Your task to perform on an android device: Open Yahoo.com Image 0: 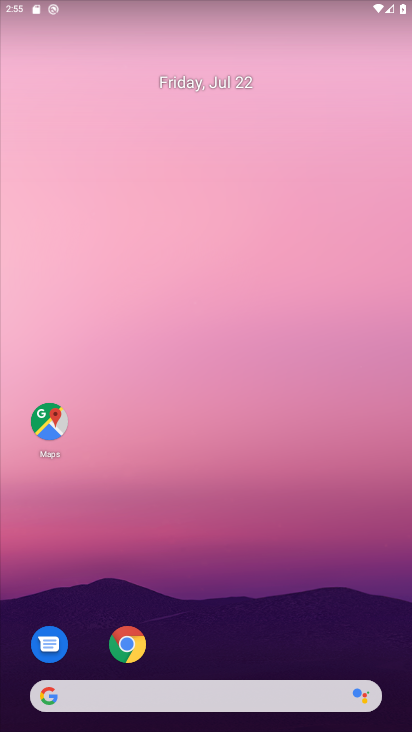
Step 0: click (126, 651)
Your task to perform on an android device: Open Yahoo.com Image 1: 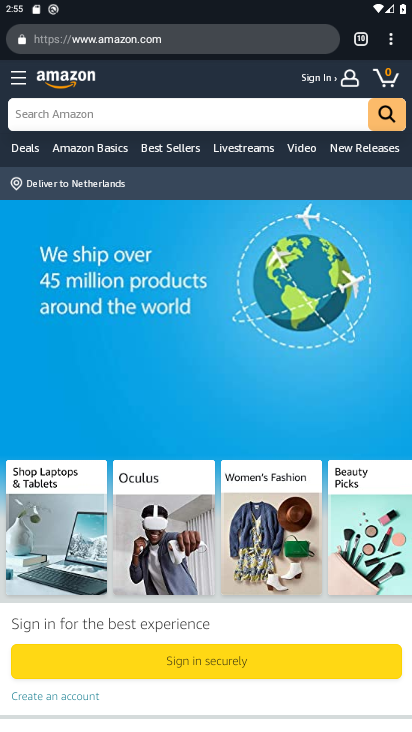
Step 1: click (397, 36)
Your task to perform on an android device: Open Yahoo.com Image 2: 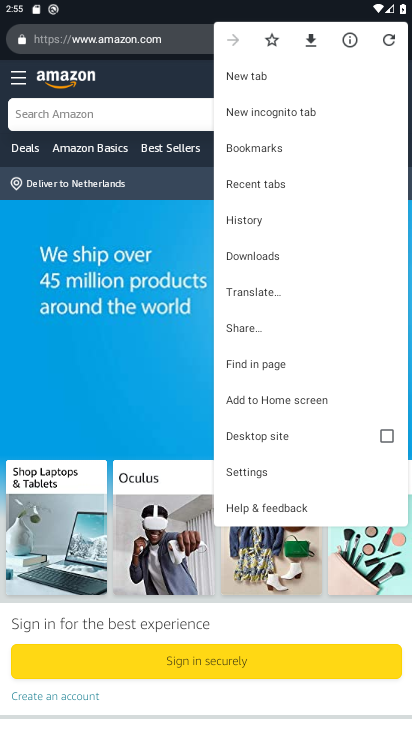
Step 2: click (243, 74)
Your task to perform on an android device: Open Yahoo.com Image 3: 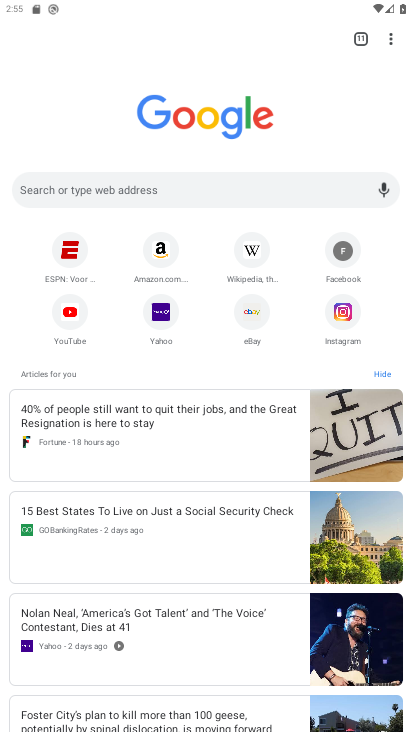
Step 3: click (166, 312)
Your task to perform on an android device: Open Yahoo.com Image 4: 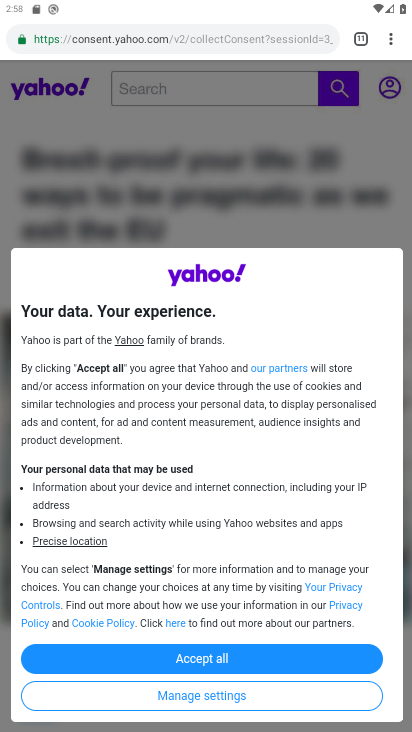
Step 4: task complete